Your task to perform on an android device: toggle show notifications on the lock screen Image 0: 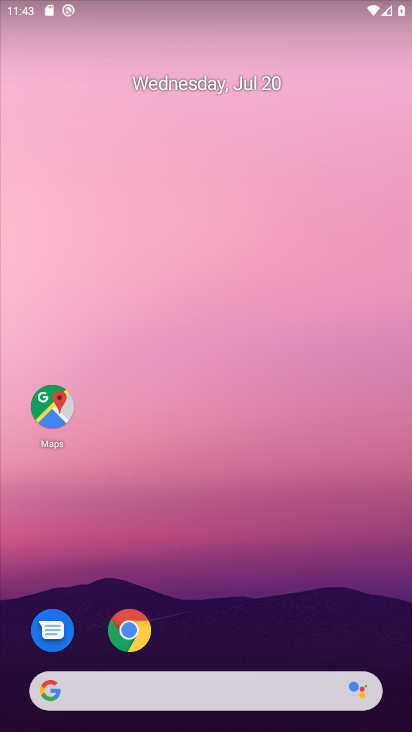
Step 0: drag from (170, 615) to (211, 246)
Your task to perform on an android device: toggle show notifications on the lock screen Image 1: 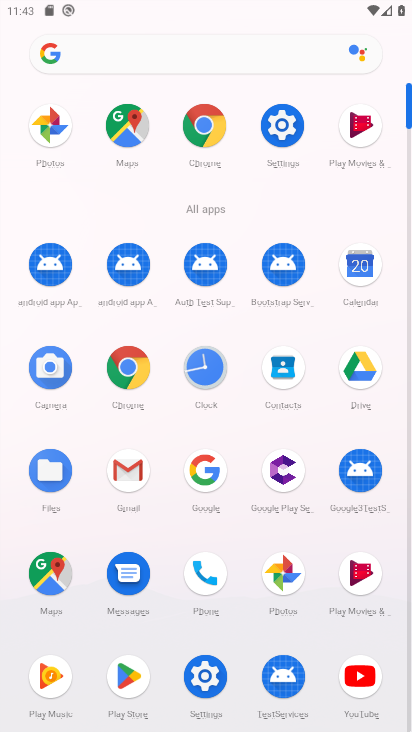
Step 1: drag from (168, 623) to (168, 244)
Your task to perform on an android device: toggle show notifications on the lock screen Image 2: 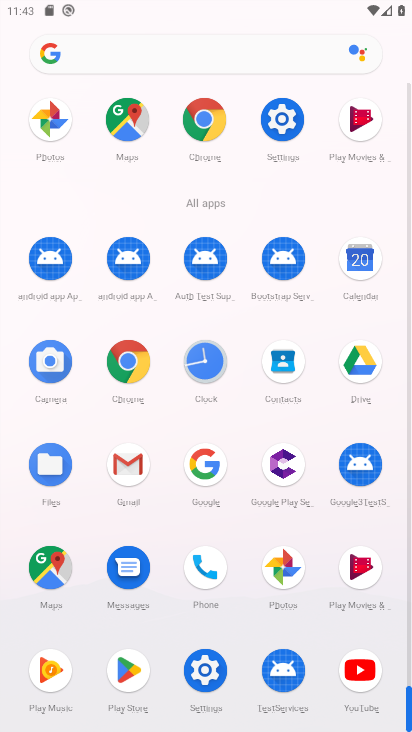
Step 2: click (203, 664)
Your task to perform on an android device: toggle show notifications on the lock screen Image 3: 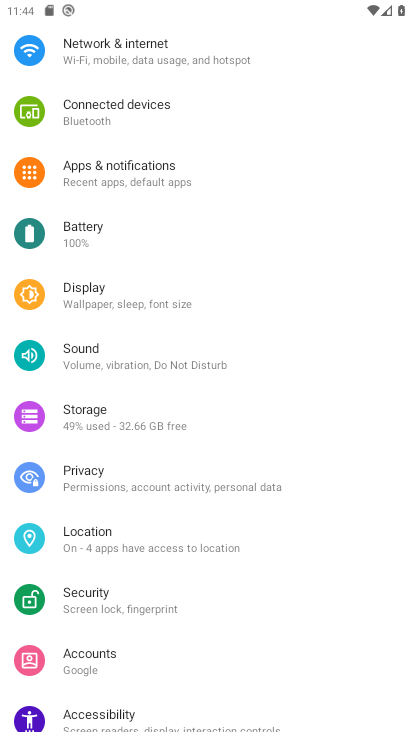
Step 3: drag from (169, 620) to (237, 253)
Your task to perform on an android device: toggle show notifications on the lock screen Image 4: 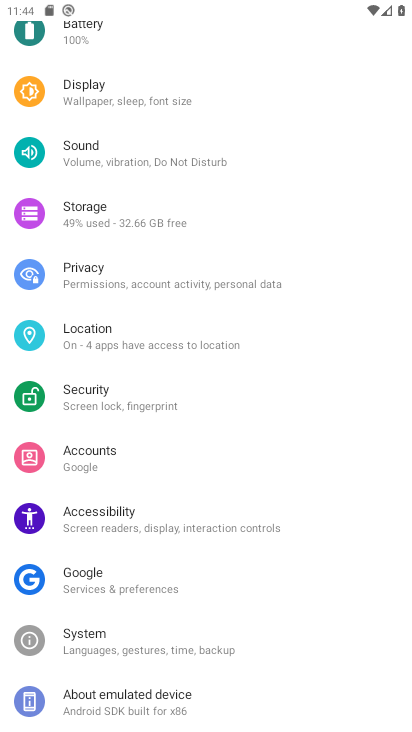
Step 4: drag from (175, 657) to (221, 380)
Your task to perform on an android device: toggle show notifications on the lock screen Image 5: 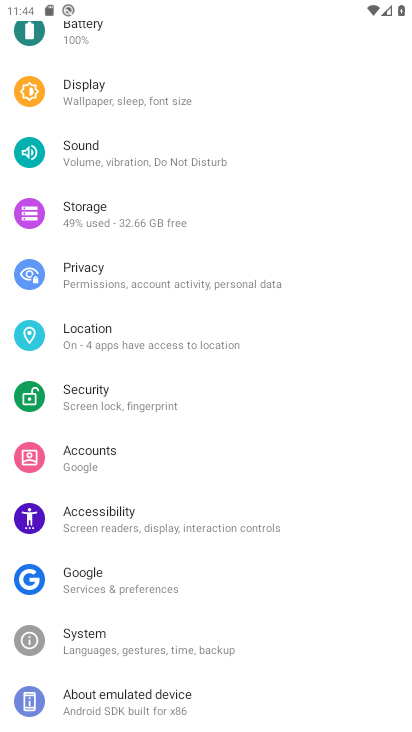
Step 5: drag from (189, 270) to (239, 720)
Your task to perform on an android device: toggle show notifications on the lock screen Image 6: 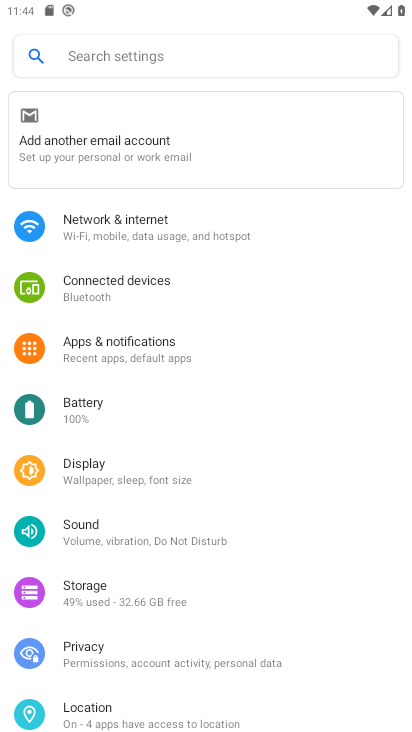
Step 6: drag from (212, 131) to (179, 623)
Your task to perform on an android device: toggle show notifications on the lock screen Image 7: 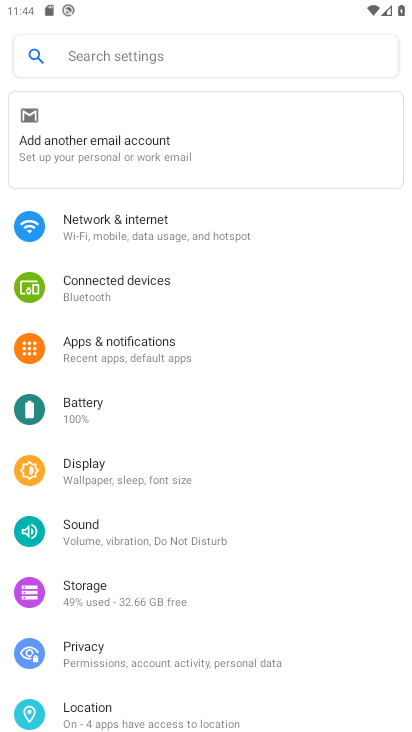
Step 7: click (193, 328)
Your task to perform on an android device: toggle show notifications on the lock screen Image 8: 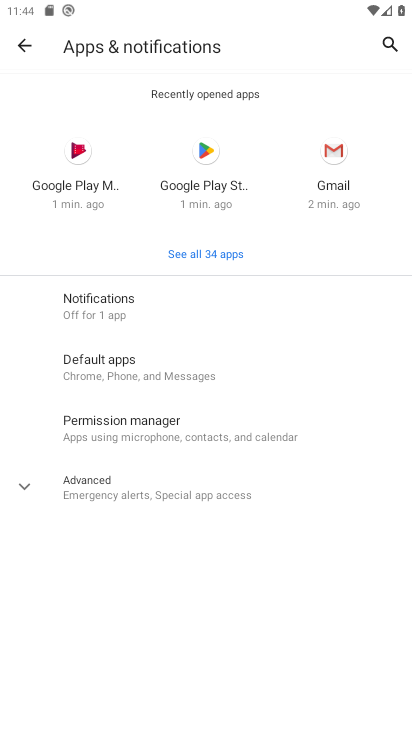
Step 8: drag from (217, 523) to (198, 325)
Your task to perform on an android device: toggle show notifications on the lock screen Image 9: 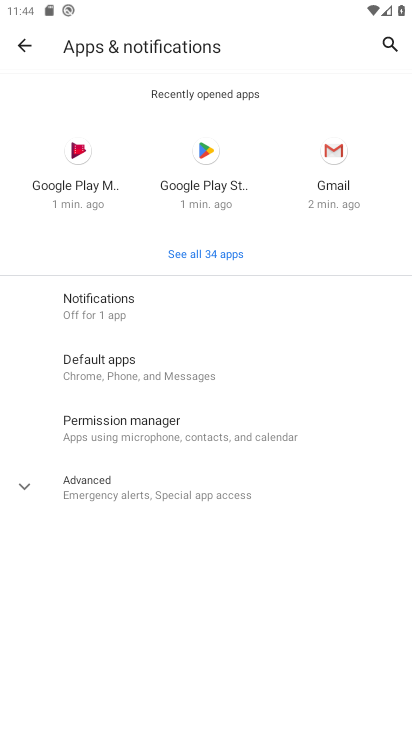
Step 9: click (141, 291)
Your task to perform on an android device: toggle show notifications on the lock screen Image 10: 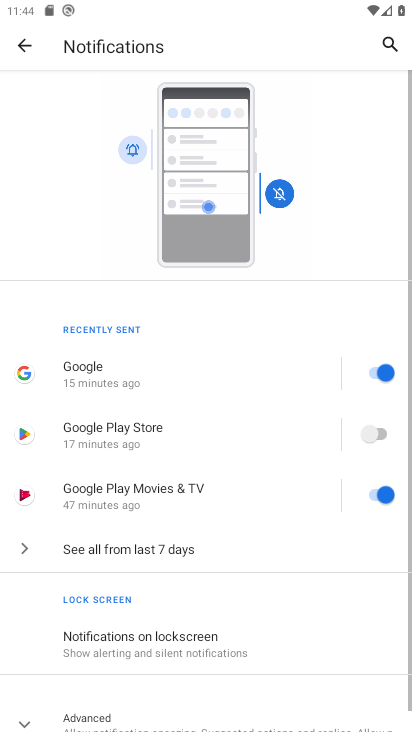
Step 10: drag from (189, 617) to (208, 419)
Your task to perform on an android device: toggle show notifications on the lock screen Image 11: 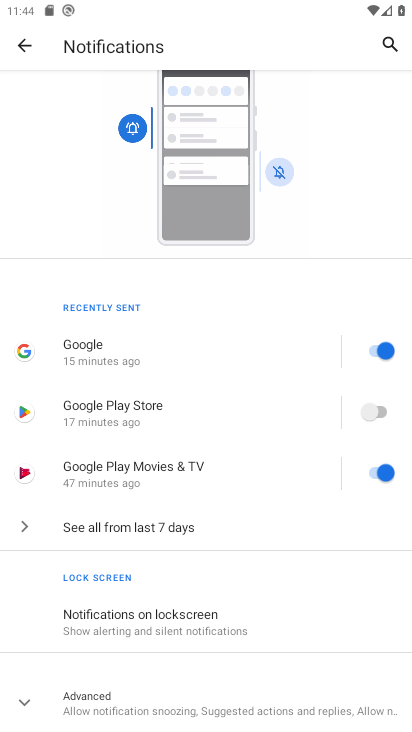
Step 11: drag from (191, 501) to (206, 279)
Your task to perform on an android device: toggle show notifications on the lock screen Image 12: 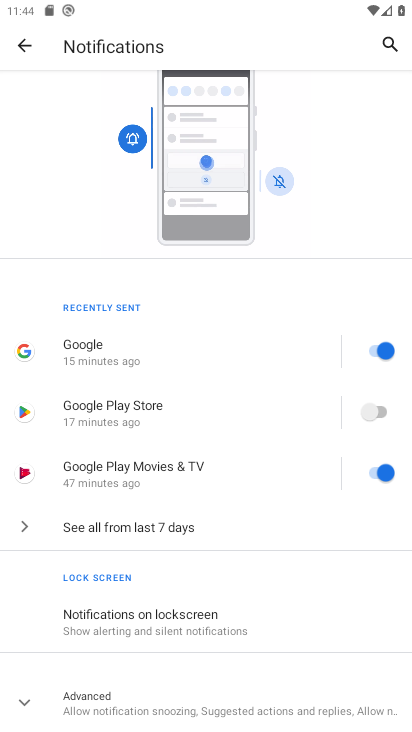
Step 12: drag from (156, 646) to (164, 266)
Your task to perform on an android device: toggle show notifications on the lock screen Image 13: 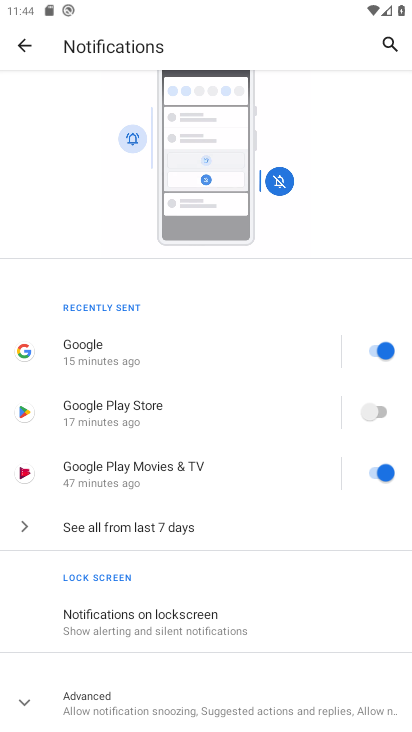
Step 13: drag from (198, 655) to (217, 436)
Your task to perform on an android device: toggle show notifications on the lock screen Image 14: 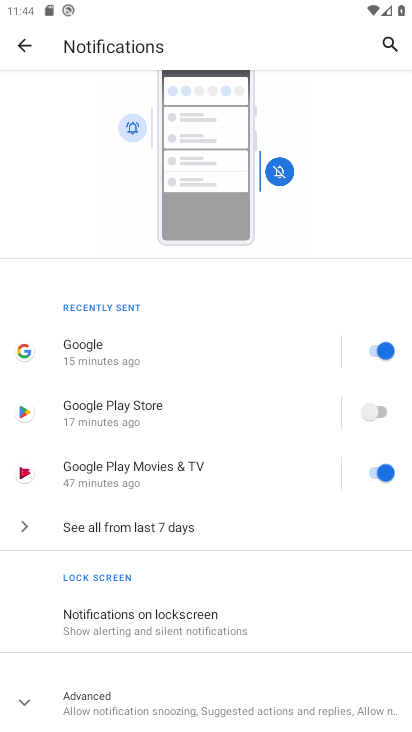
Step 14: click (201, 605)
Your task to perform on an android device: toggle show notifications on the lock screen Image 15: 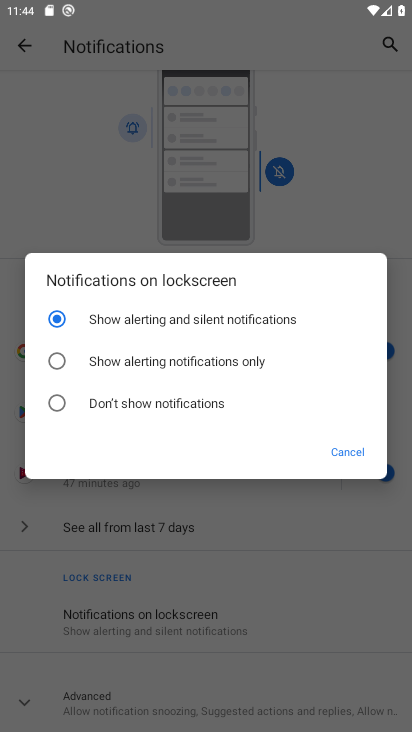
Step 15: drag from (200, 602) to (231, 264)
Your task to perform on an android device: toggle show notifications on the lock screen Image 16: 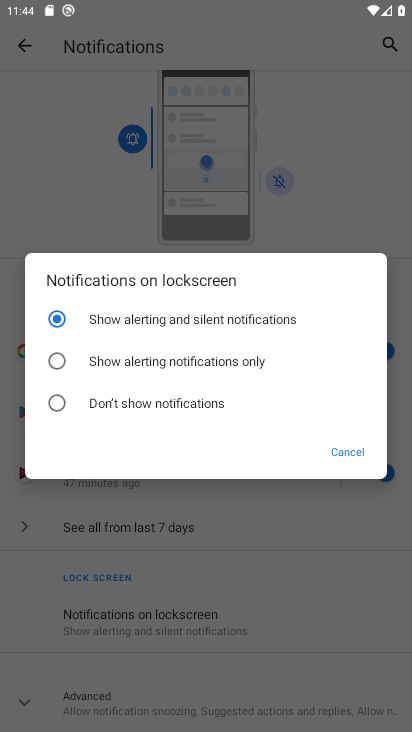
Step 16: click (116, 314)
Your task to perform on an android device: toggle show notifications on the lock screen Image 17: 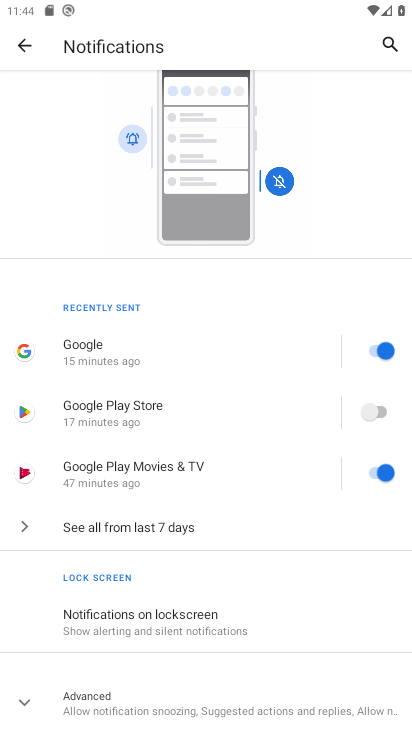
Step 17: drag from (240, 616) to (260, 310)
Your task to perform on an android device: toggle show notifications on the lock screen Image 18: 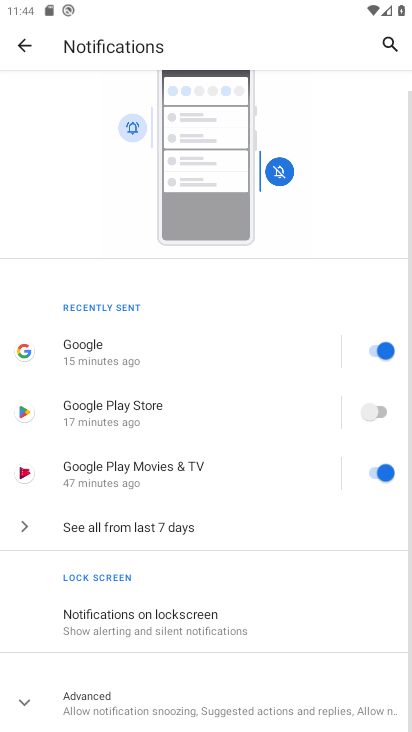
Step 18: drag from (228, 643) to (263, 297)
Your task to perform on an android device: toggle show notifications on the lock screen Image 19: 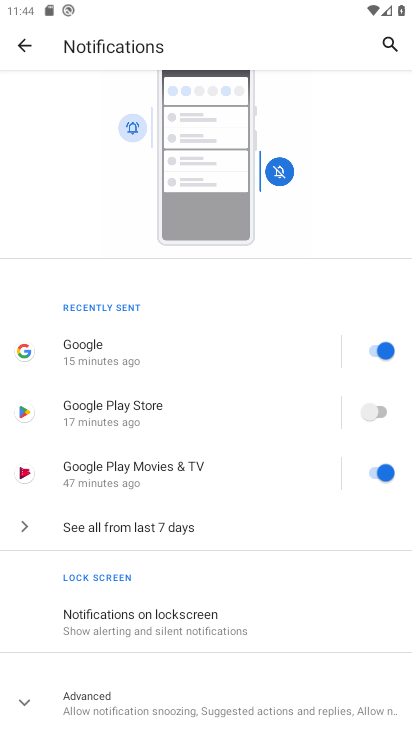
Step 19: drag from (208, 674) to (232, 404)
Your task to perform on an android device: toggle show notifications on the lock screen Image 20: 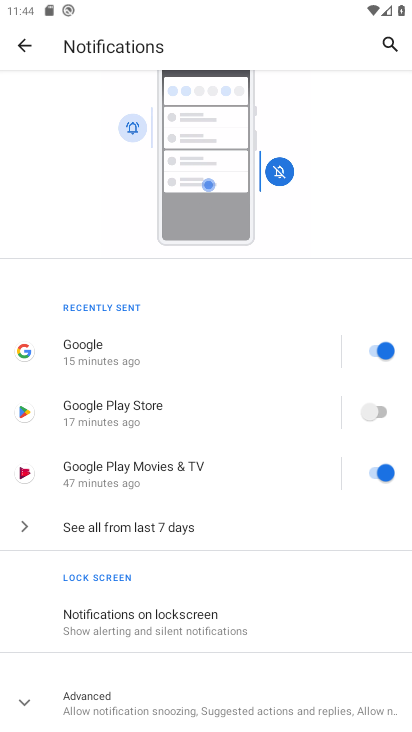
Step 20: drag from (190, 474) to (234, 287)
Your task to perform on an android device: toggle show notifications on the lock screen Image 21: 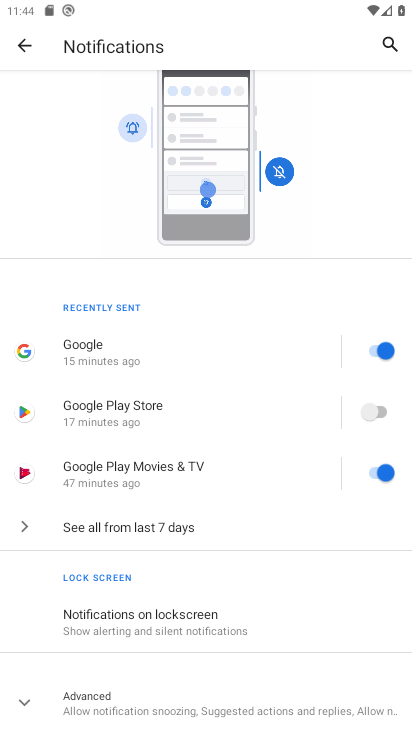
Step 21: drag from (204, 634) to (256, 312)
Your task to perform on an android device: toggle show notifications on the lock screen Image 22: 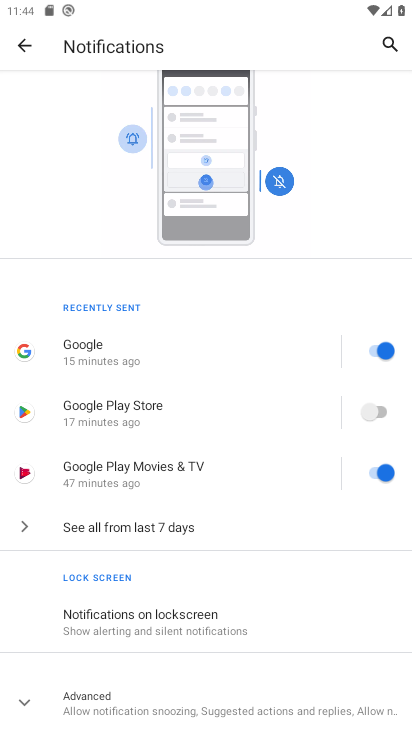
Step 22: drag from (154, 635) to (235, 147)
Your task to perform on an android device: toggle show notifications on the lock screen Image 23: 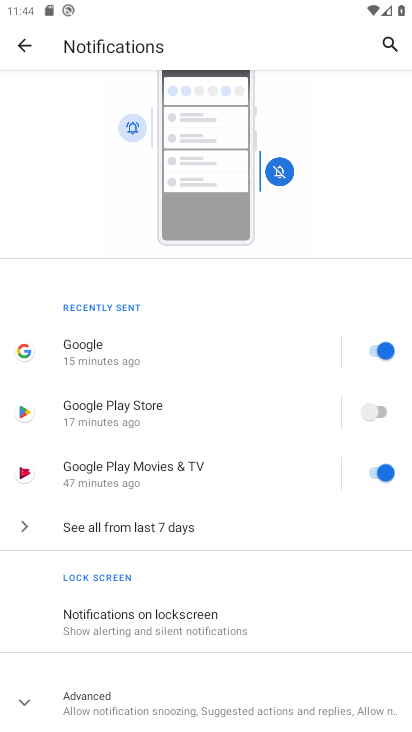
Step 23: click (198, 613)
Your task to perform on an android device: toggle show notifications on the lock screen Image 24: 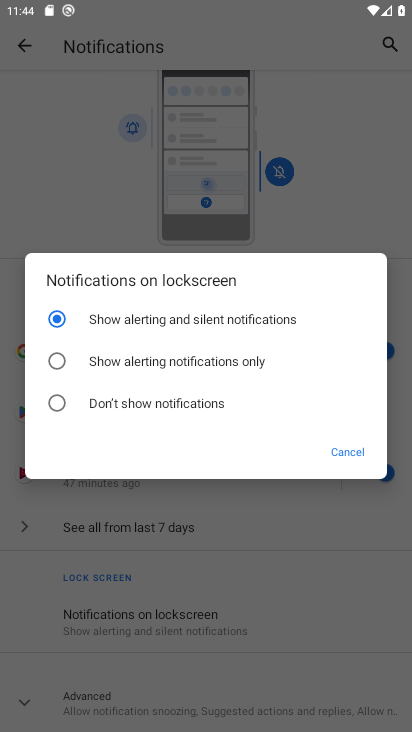
Step 24: click (117, 364)
Your task to perform on an android device: toggle show notifications on the lock screen Image 25: 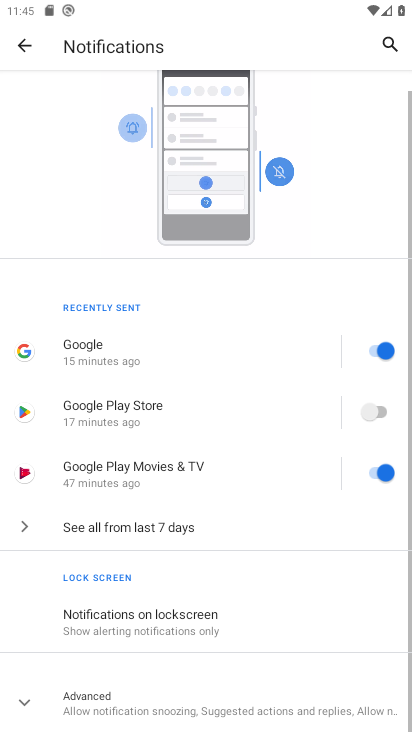
Step 25: task complete